Your task to perform on an android device: Go to settings Image 0: 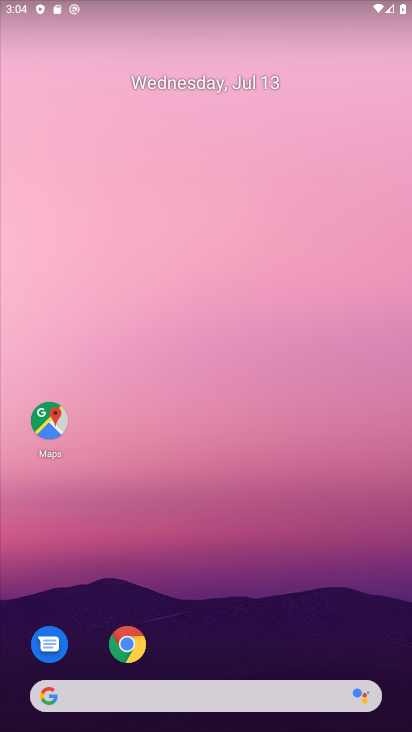
Step 0: drag from (199, 691) to (243, 156)
Your task to perform on an android device: Go to settings Image 1: 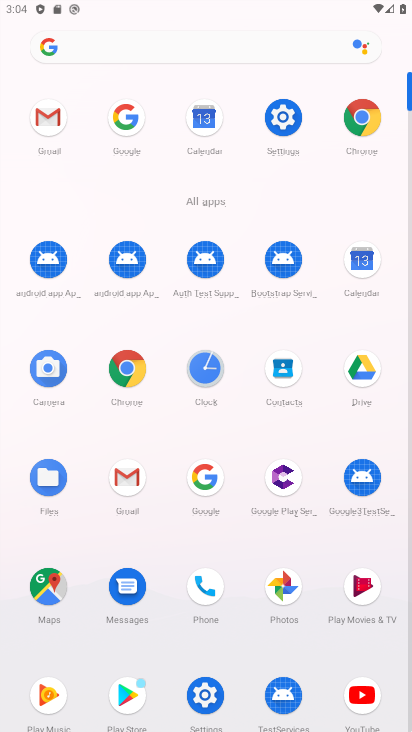
Step 1: click (282, 116)
Your task to perform on an android device: Go to settings Image 2: 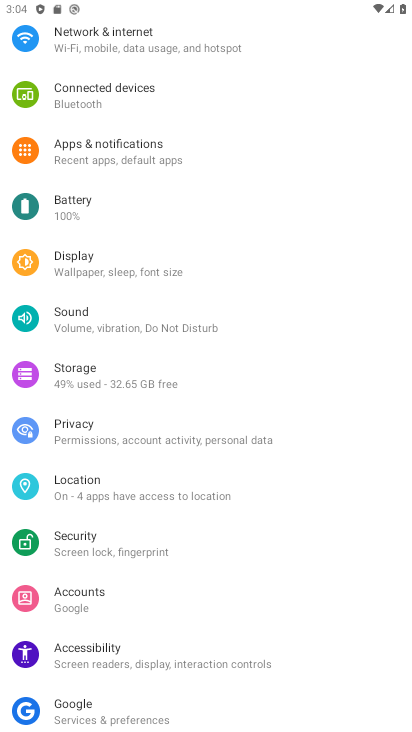
Step 2: task complete